Your task to perform on an android device: Open Google Chrome and click the shortcut for Amazon.com Image 0: 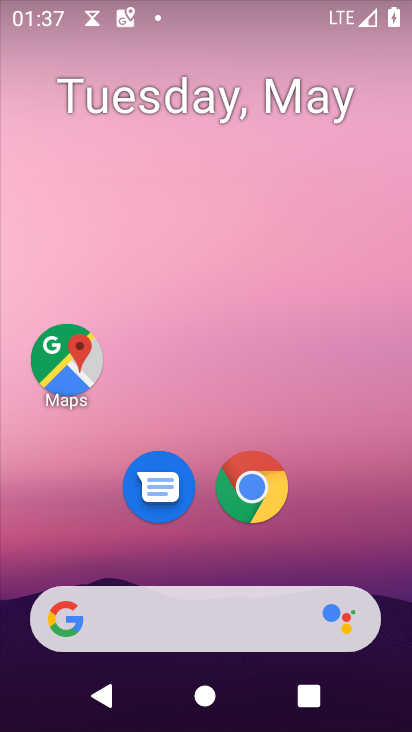
Step 0: click (254, 500)
Your task to perform on an android device: Open Google Chrome and click the shortcut for Amazon.com Image 1: 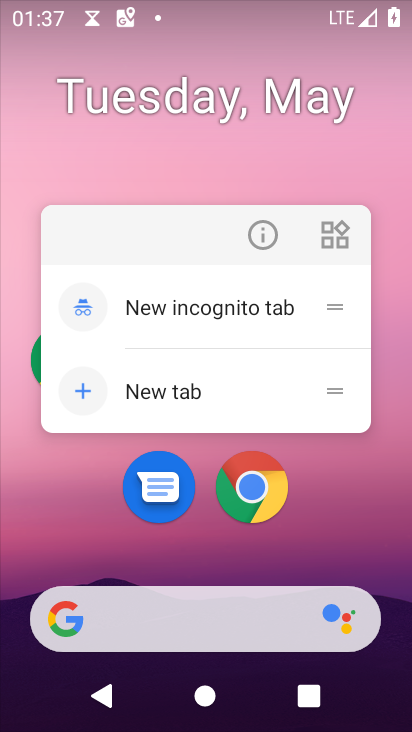
Step 1: click (253, 500)
Your task to perform on an android device: Open Google Chrome and click the shortcut for Amazon.com Image 2: 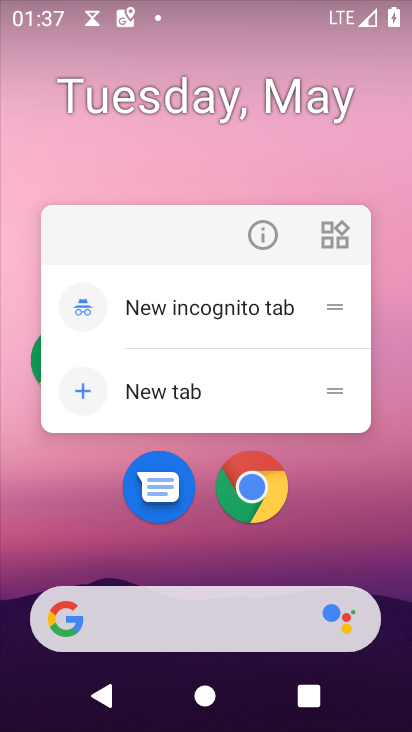
Step 2: click (253, 500)
Your task to perform on an android device: Open Google Chrome and click the shortcut for Amazon.com Image 3: 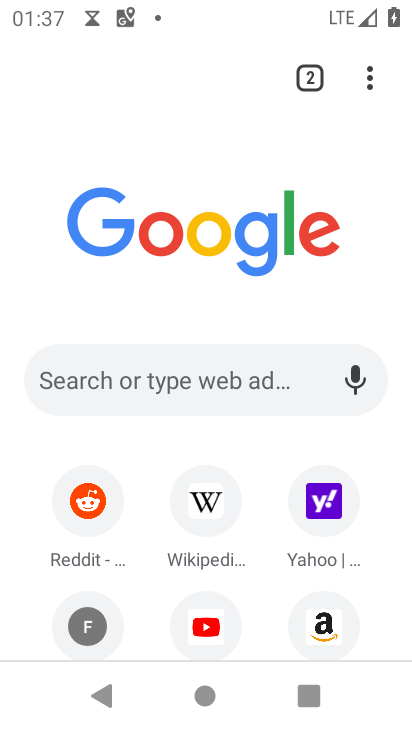
Step 3: click (312, 612)
Your task to perform on an android device: Open Google Chrome and click the shortcut for Amazon.com Image 4: 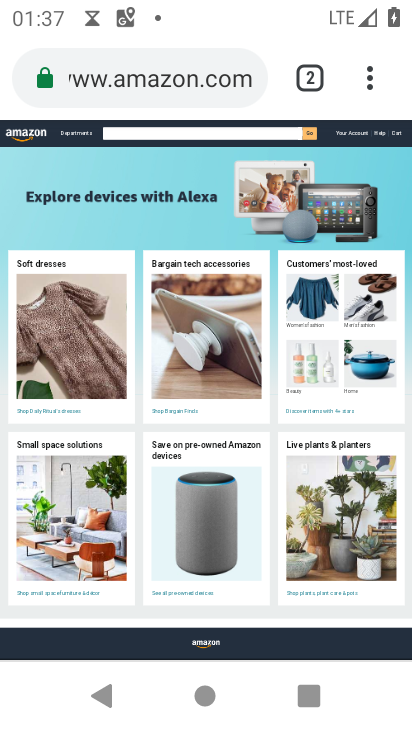
Step 4: task complete